Your task to perform on an android device: turn smart compose on in the gmail app Image 0: 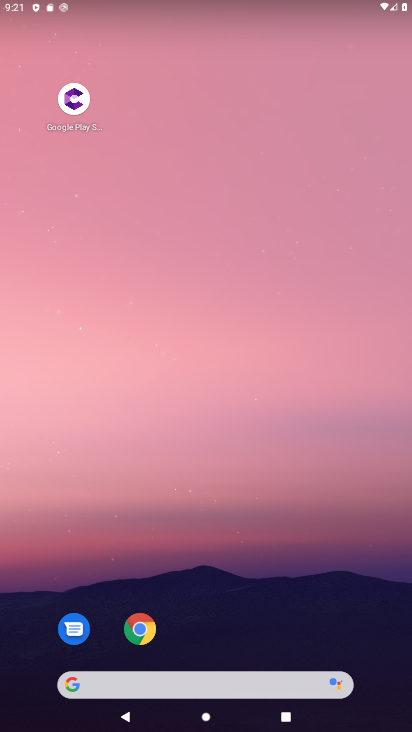
Step 0: drag from (223, 660) to (284, 175)
Your task to perform on an android device: turn smart compose on in the gmail app Image 1: 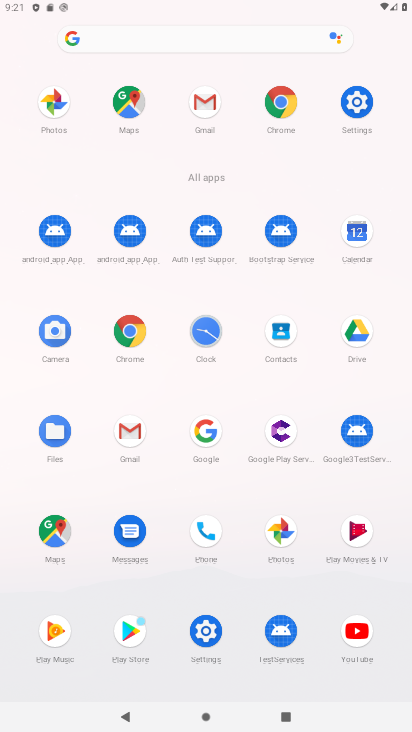
Step 1: click (121, 427)
Your task to perform on an android device: turn smart compose on in the gmail app Image 2: 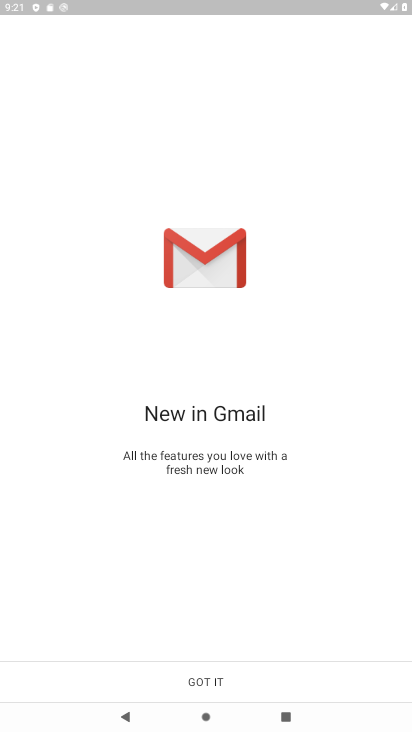
Step 2: click (211, 671)
Your task to perform on an android device: turn smart compose on in the gmail app Image 3: 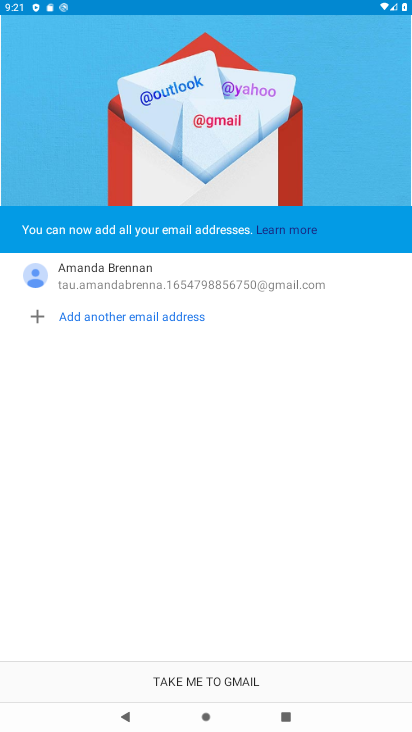
Step 3: click (215, 674)
Your task to perform on an android device: turn smart compose on in the gmail app Image 4: 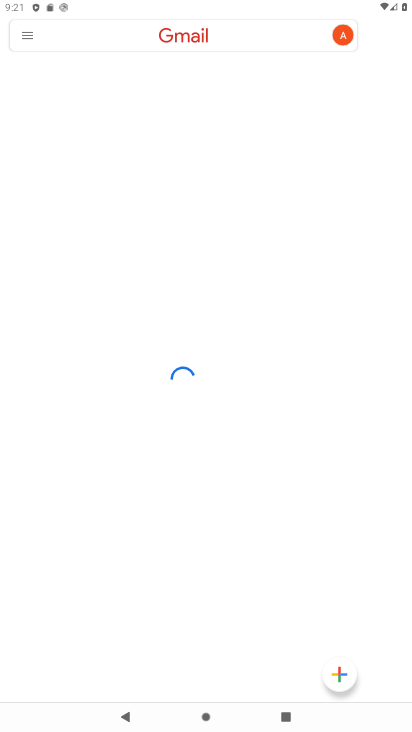
Step 4: click (33, 38)
Your task to perform on an android device: turn smart compose on in the gmail app Image 5: 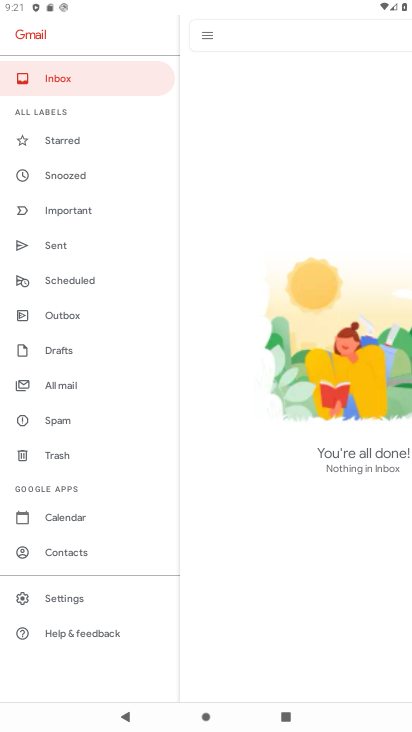
Step 5: click (59, 594)
Your task to perform on an android device: turn smart compose on in the gmail app Image 6: 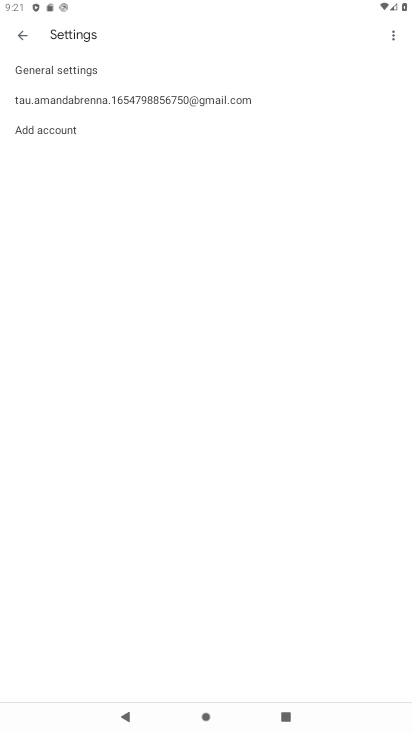
Step 6: click (187, 102)
Your task to perform on an android device: turn smart compose on in the gmail app Image 7: 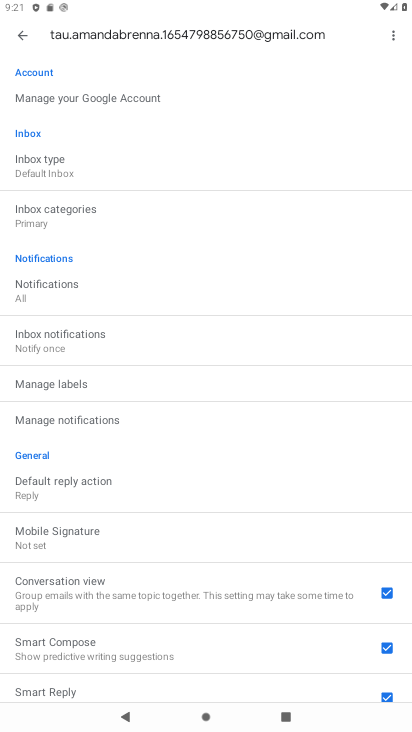
Step 7: task complete